Your task to perform on an android device: add a contact in the contacts app Image 0: 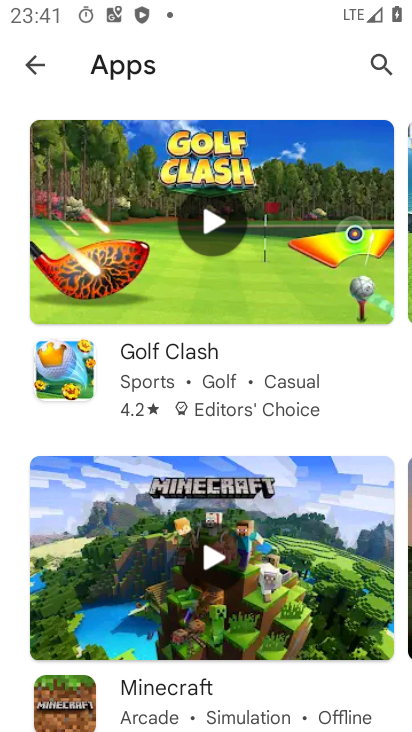
Step 0: press home button
Your task to perform on an android device: add a contact in the contacts app Image 1: 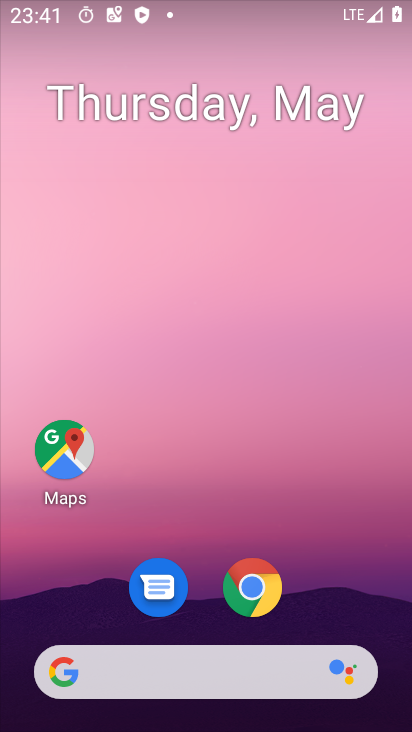
Step 1: drag from (326, 603) to (285, 34)
Your task to perform on an android device: add a contact in the contacts app Image 2: 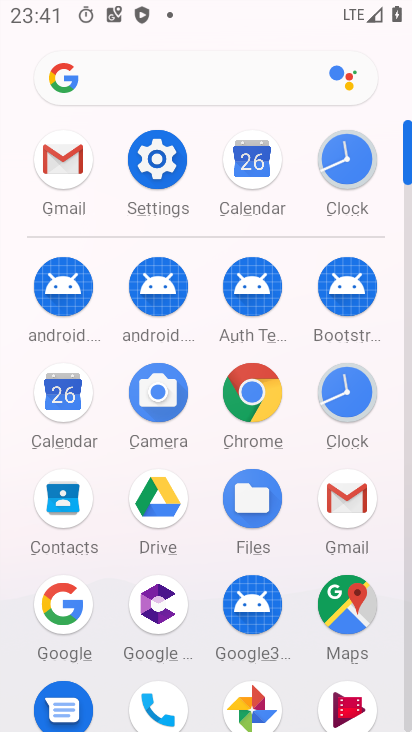
Step 2: click (78, 508)
Your task to perform on an android device: add a contact in the contacts app Image 3: 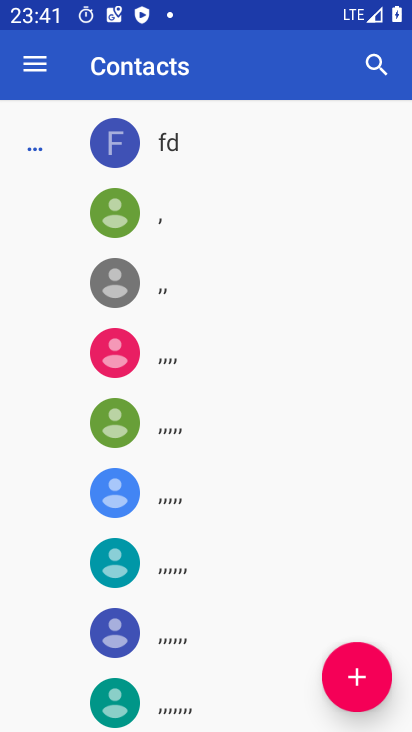
Step 3: click (365, 693)
Your task to perform on an android device: add a contact in the contacts app Image 4: 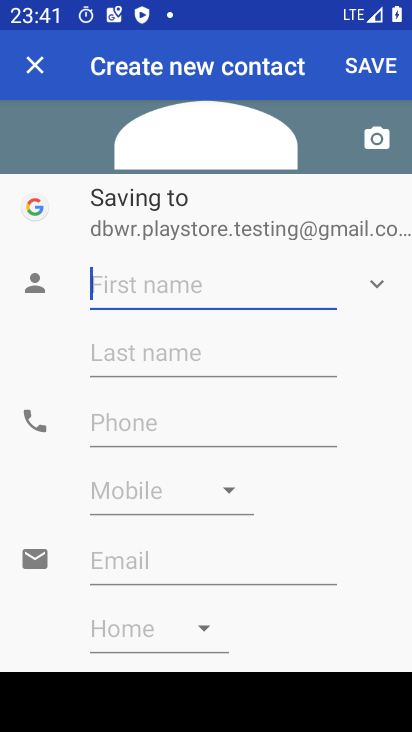
Step 4: click (172, 276)
Your task to perform on an android device: add a contact in the contacts app Image 5: 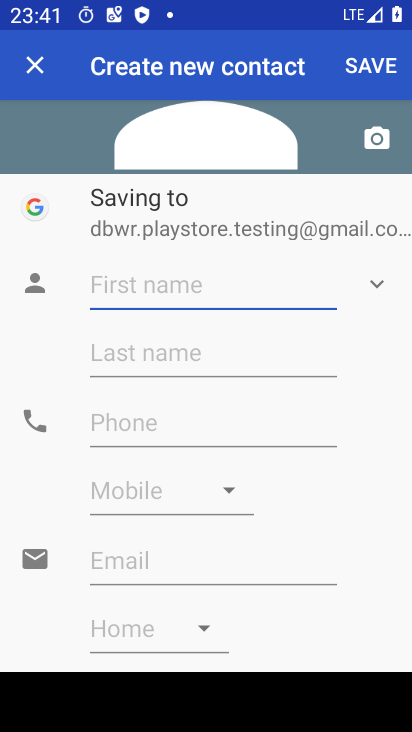
Step 5: type "tara"
Your task to perform on an android device: add a contact in the contacts app Image 6: 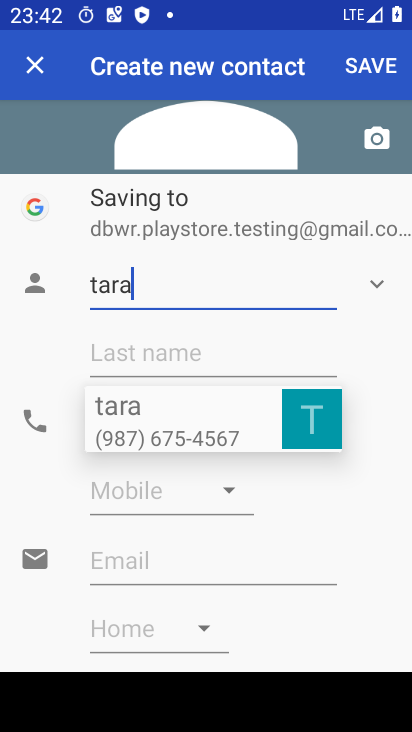
Step 6: click (365, 424)
Your task to perform on an android device: add a contact in the contacts app Image 7: 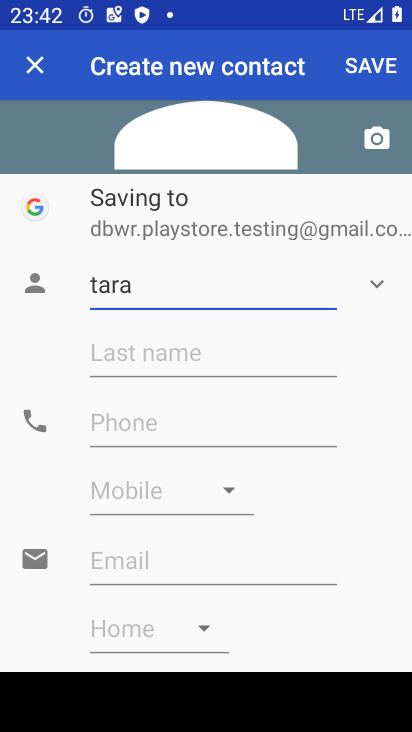
Step 7: click (179, 429)
Your task to perform on an android device: add a contact in the contacts app Image 8: 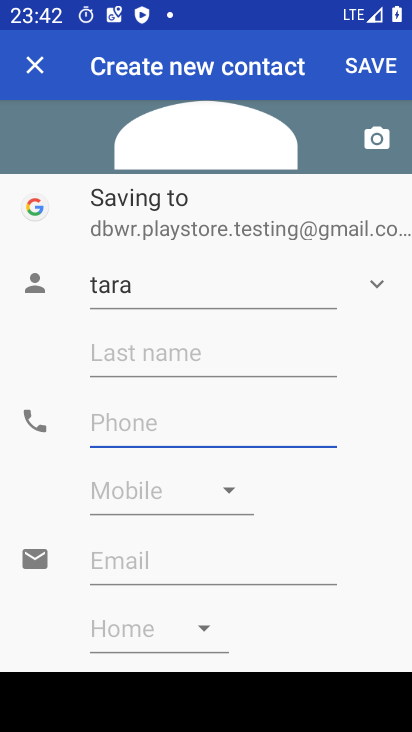
Step 8: type "9876544455"
Your task to perform on an android device: add a contact in the contacts app Image 9: 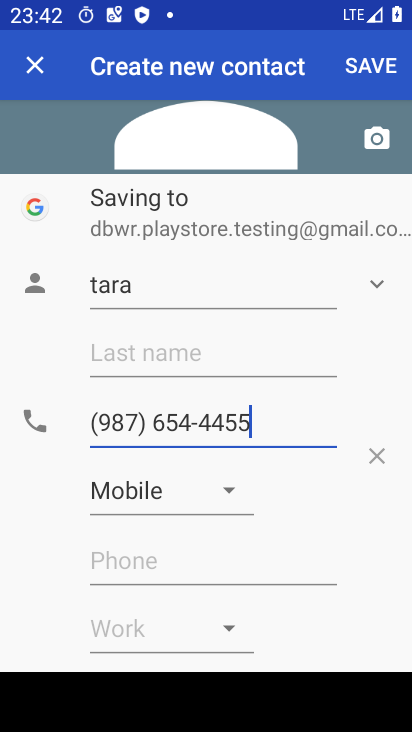
Step 9: click (343, 50)
Your task to perform on an android device: add a contact in the contacts app Image 10: 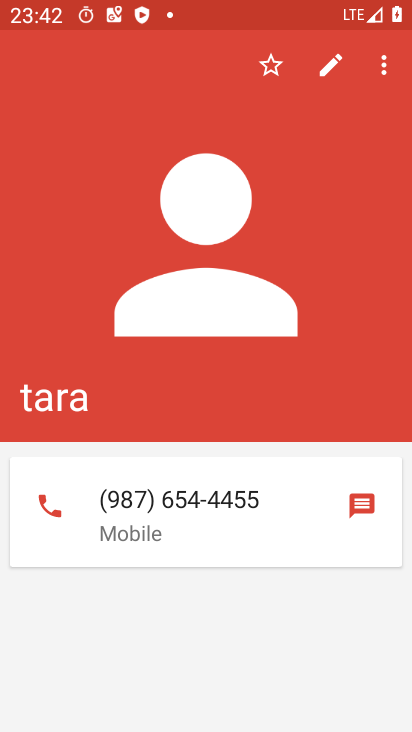
Step 10: task complete